Your task to perform on an android device: toggle pop-ups in chrome Image 0: 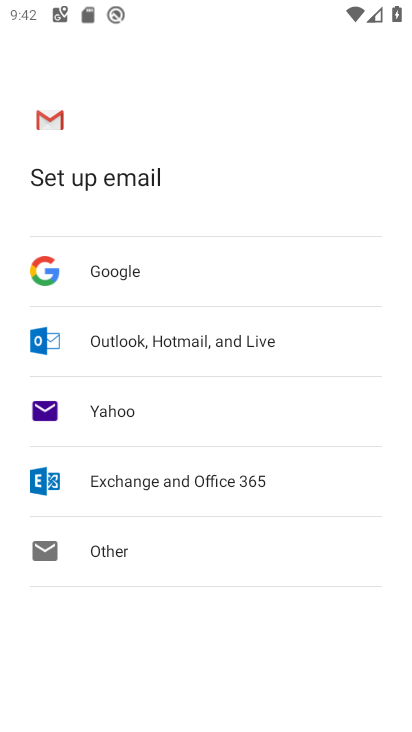
Step 0: press home button
Your task to perform on an android device: toggle pop-ups in chrome Image 1: 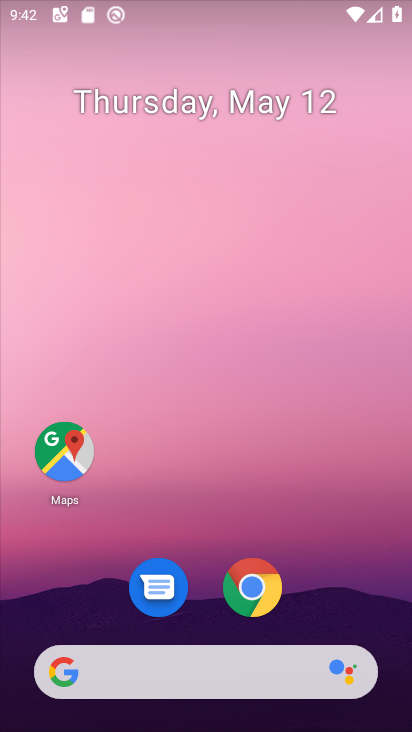
Step 1: drag from (402, 674) to (249, 65)
Your task to perform on an android device: toggle pop-ups in chrome Image 2: 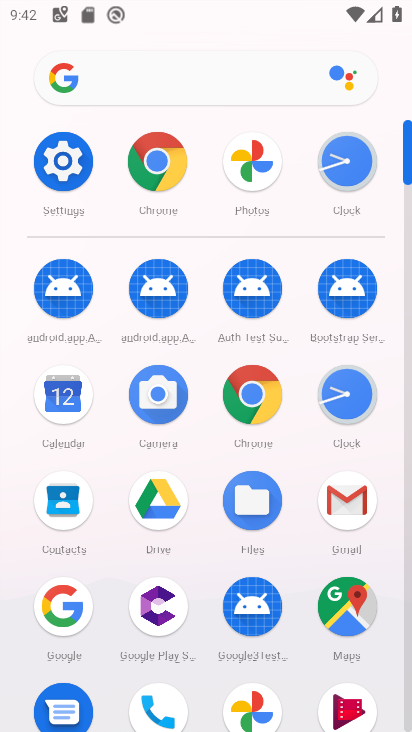
Step 2: click (167, 169)
Your task to perform on an android device: toggle pop-ups in chrome Image 3: 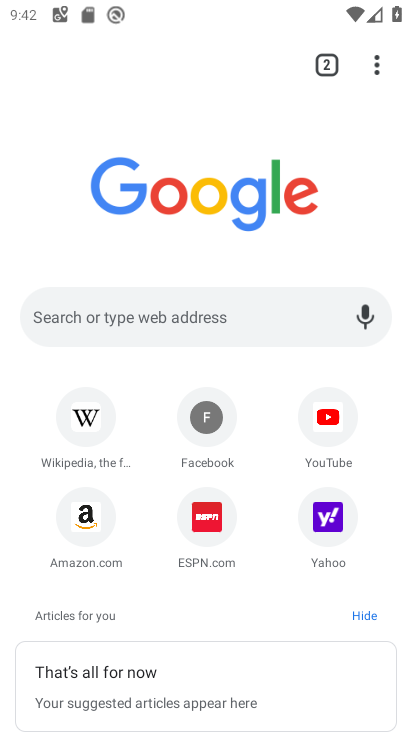
Step 3: click (374, 65)
Your task to perform on an android device: toggle pop-ups in chrome Image 4: 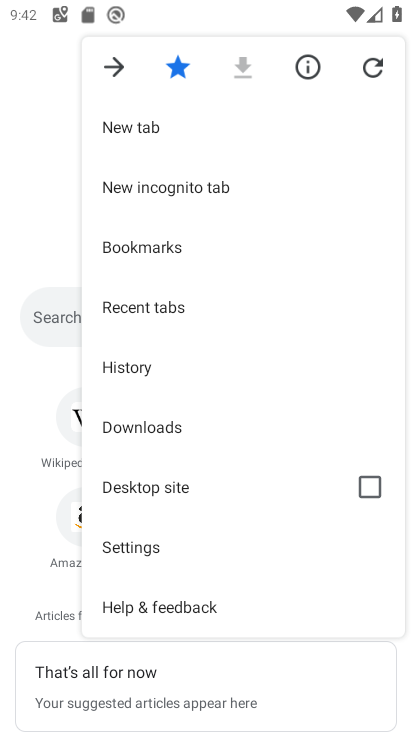
Step 4: click (176, 543)
Your task to perform on an android device: toggle pop-ups in chrome Image 5: 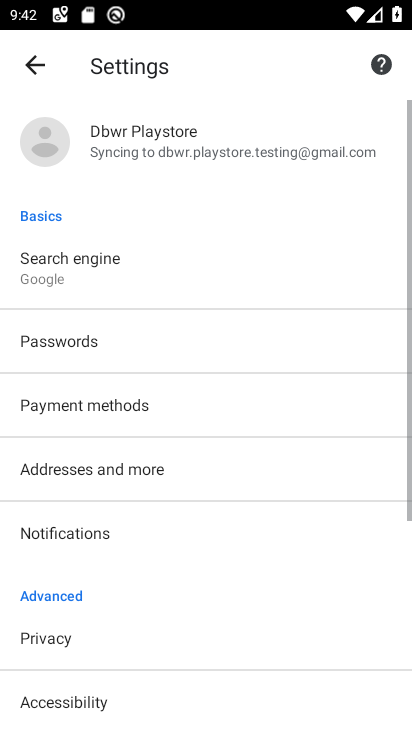
Step 5: drag from (95, 684) to (150, 255)
Your task to perform on an android device: toggle pop-ups in chrome Image 6: 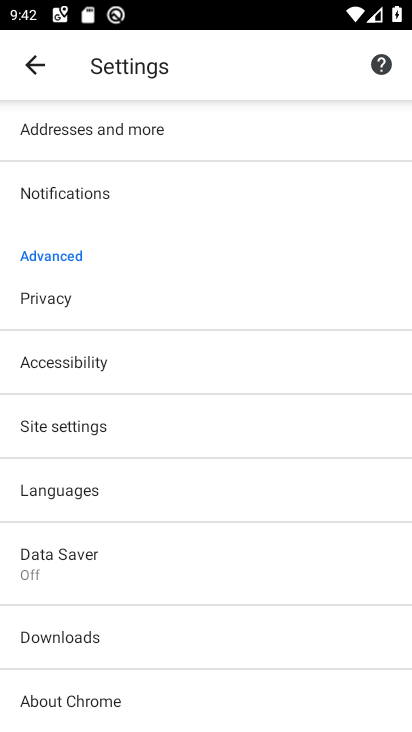
Step 6: click (109, 424)
Your task to perform on an android device: toggle pop-ups in chrome Image 7: 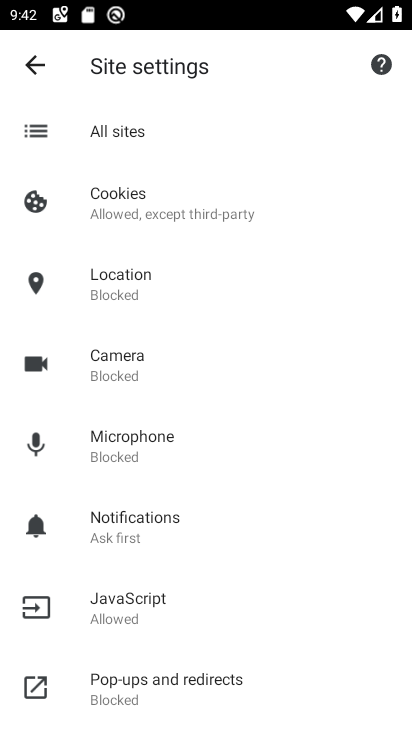
Step 7: click (148, 683)
Your task to perform on an android device: toggle pop-ups in chrome Image 8: 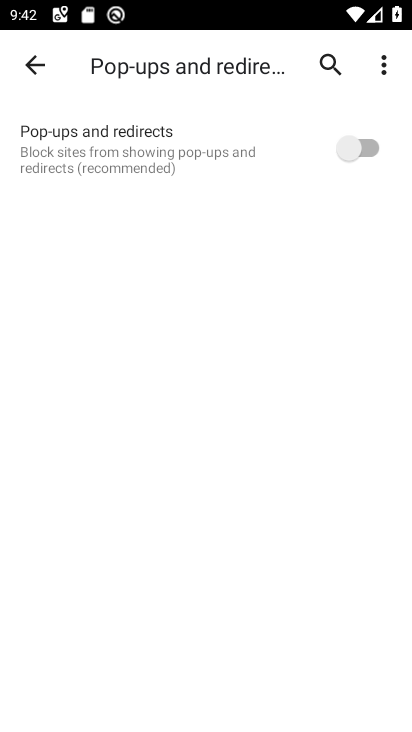
Step 8: click (338, 131)
Your task to perform on an android device: toggle pop-ups in chrome Image 9: 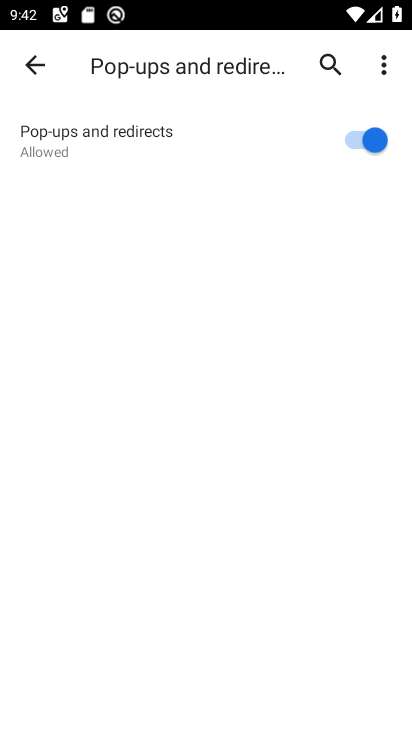
Step 9: task complete